Your task to perform on an android device: Search for the best selling book on Amazon. Image 0: 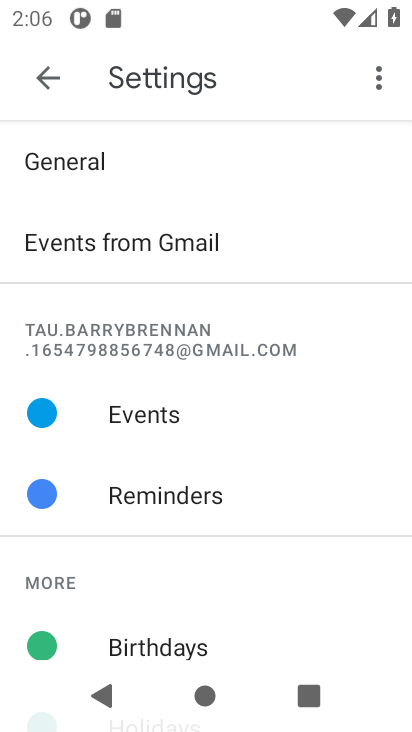
Step 0: press back button
Your task to perform on an android device: Search for the best selling book on Amazon. Image 1: 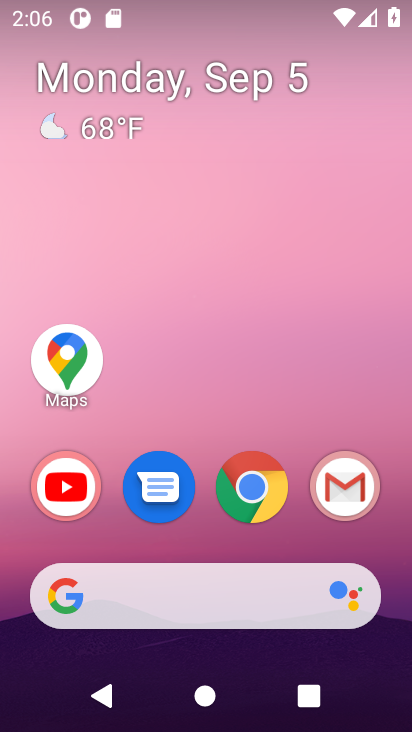
Step 1: click (260, 499)
Your task to perform on an android device: Search for the best selling book on Amazon. Image 2: 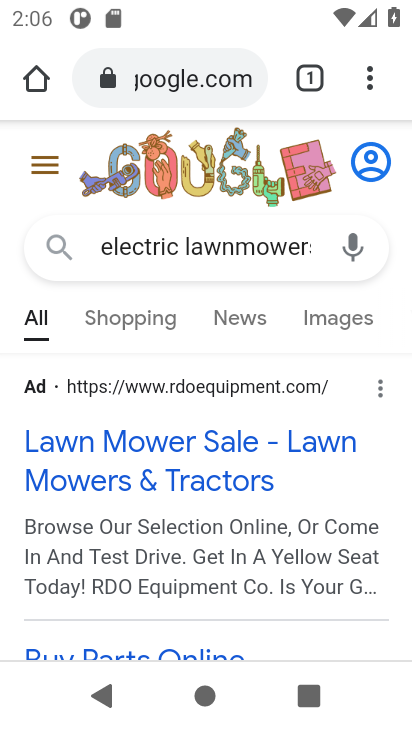
Step 2: click (170, 77)
Your task to perform on an android device: Search for the best selling book on Amazon. Image 3: 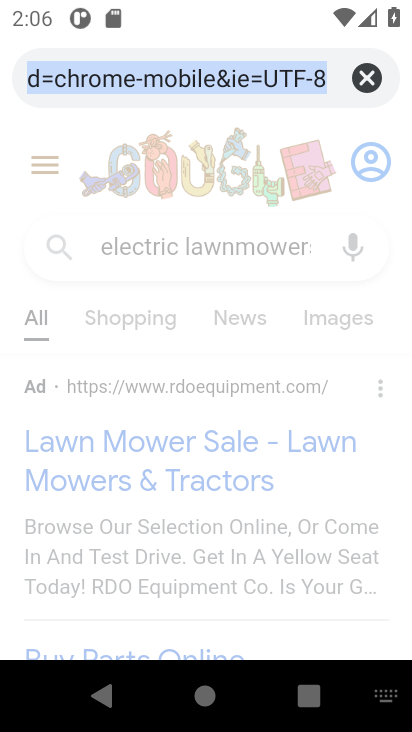
Step 3: click (365, 80)
Your task to perform on an android device: Search for the best selling book on Amazon. Image 4: 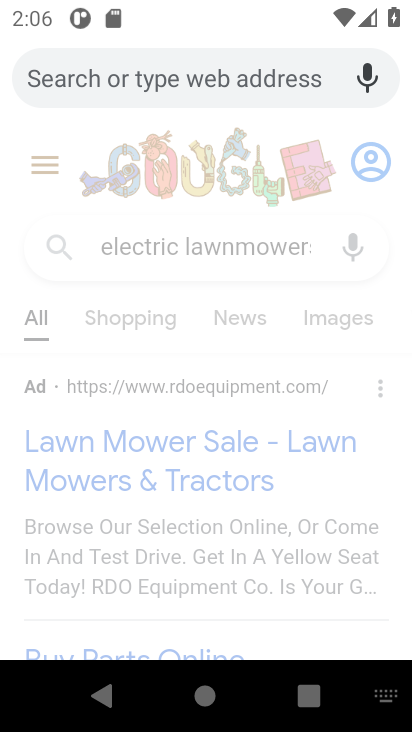
Step 4: type "the best selling book on Amazon."
Your task to perform on an android device: Search for the best selling book on Amazon. Image 5: 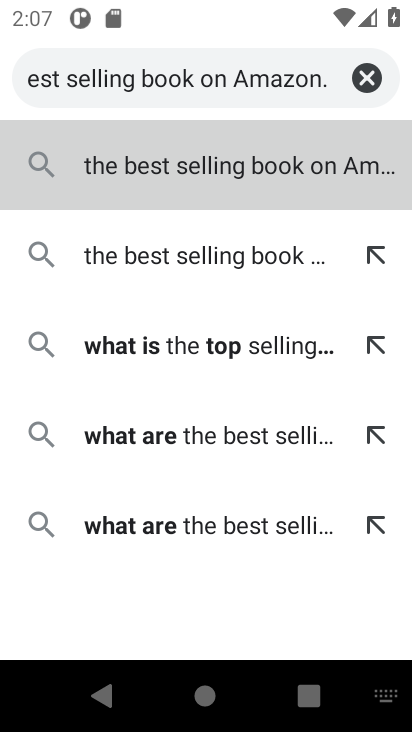
Step 5: click (278, 175)
Your task to perform on an android device: Search for the best selling book on Amazon. Image 6: 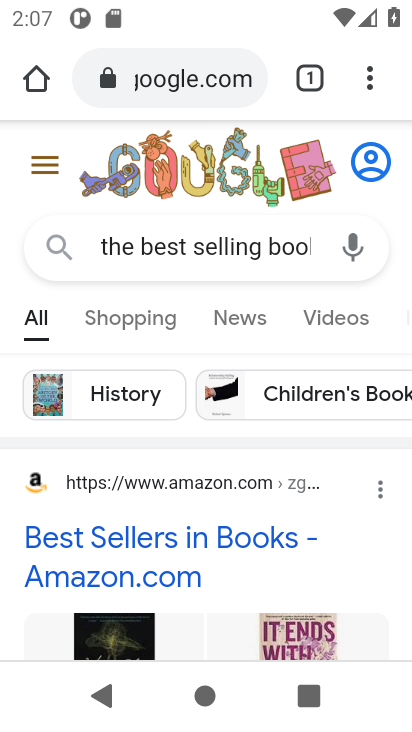
Step 6: task complete